Your task to perform on an android device: What's the weather going to be this weekend? Image 0: 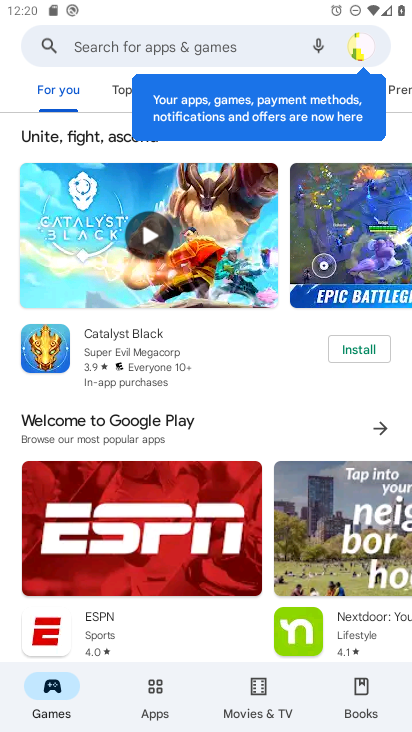
Step 0: press home button
Your task to perform on an android device: What's the weather going to be this weekend? Image 1: 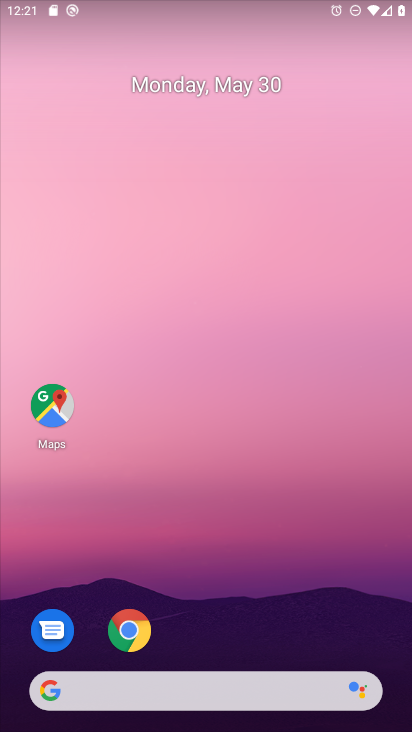
Step 1: click (52, 687)
Your task to perform on an android device: What's the weather going to be this weekend? Image 2: 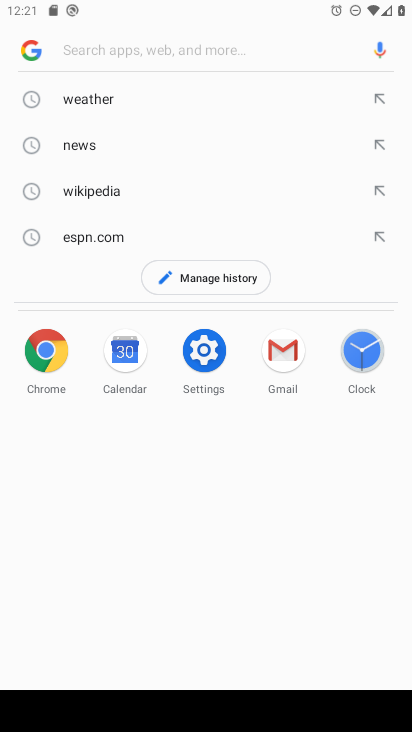
Step 2: click (103, 96)
Your task to perform on an android device: What's the weather going to be this weekend? Image 3: 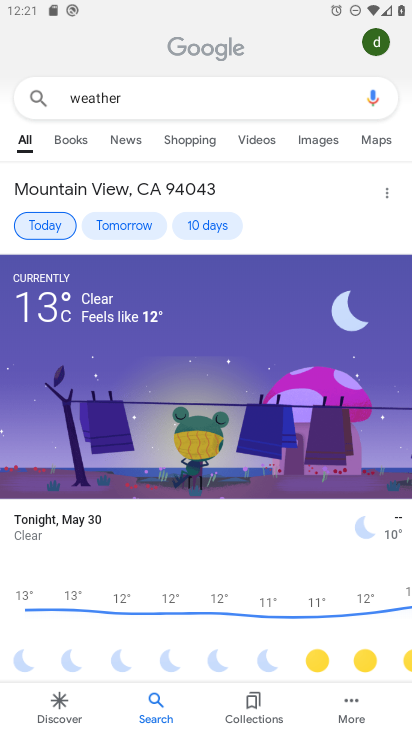
Step 3: click (192, 215)
Your task to perform on an android device: What's the weather going to be this weekend? Image 4: 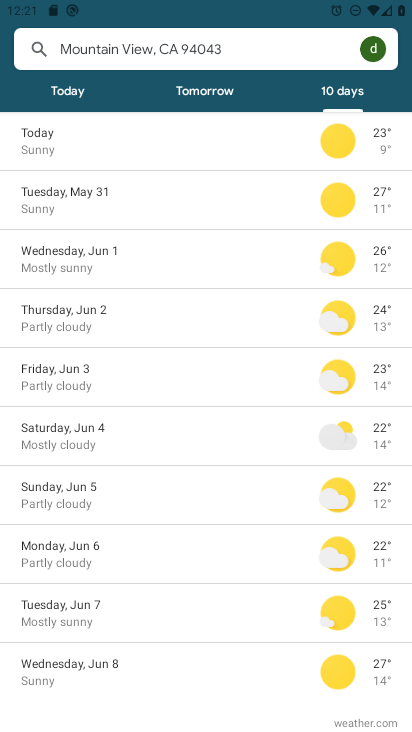
Step 4: click (97, 438)
Your task to perform on an android device: What's the weather going to be this weekend? Image 5: 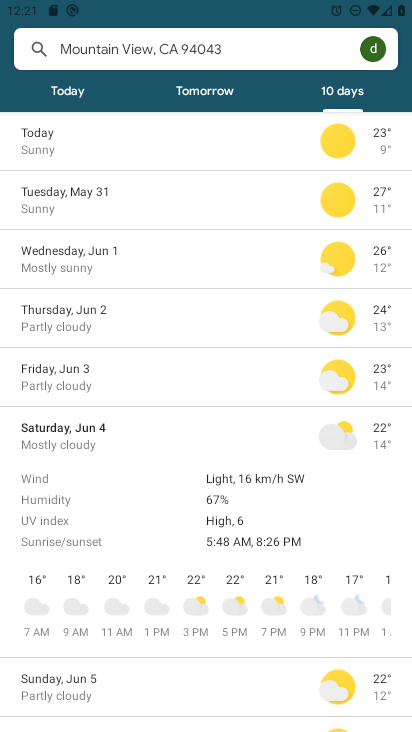
Step 5: task complete